Your task to perform on an android device: Turn off the flashlight Image 0: 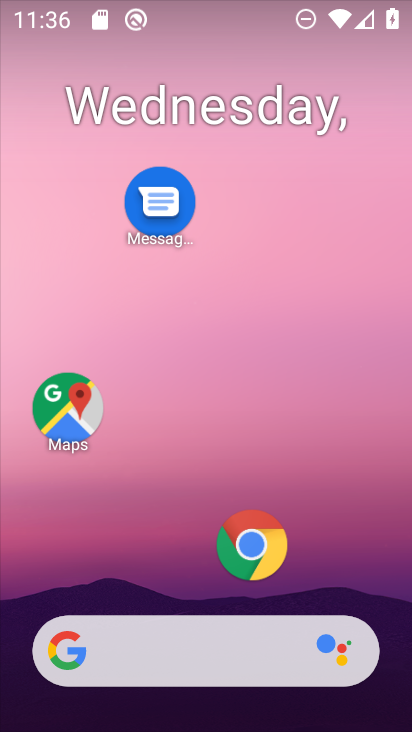
Step 0: drag from (186, 582) to (211, 243)
Your task to perform on an android device: Turn off the flashlight Image 1: 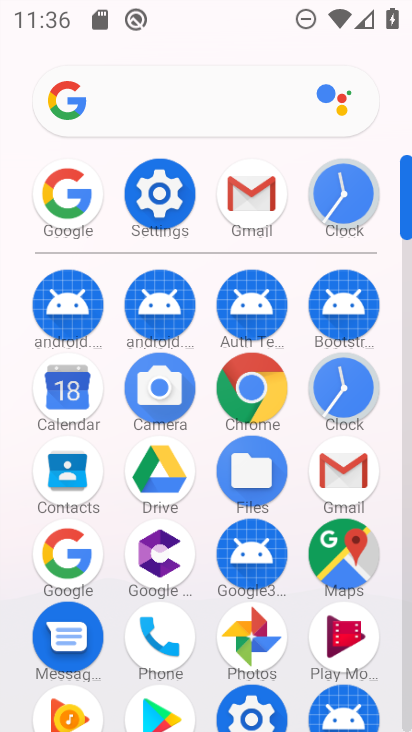
Step 1: click (158, 202)
Your task to perform on an android device: Turn off the flashlight Image 2: 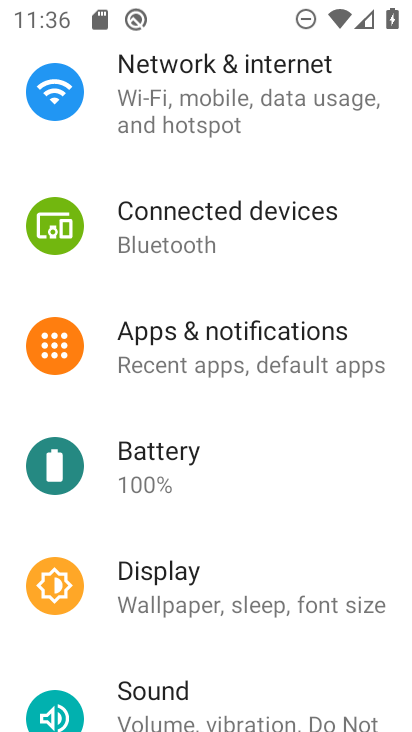
Step 2: task complete